Your task to perform on an android device: turn on priority inbox in the gmail app Image 0: 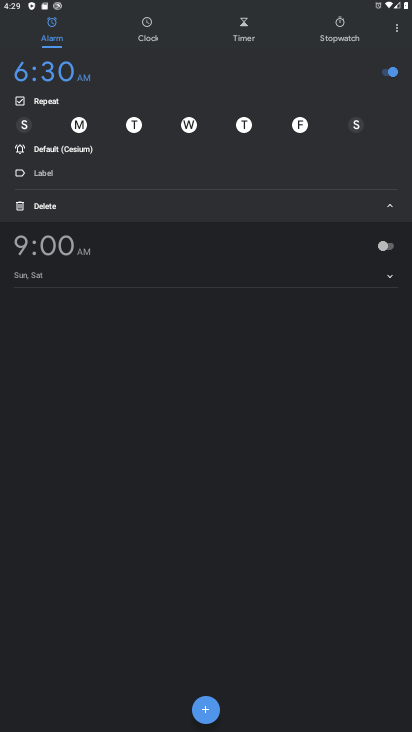
Step 0: press home button
Your task to perform on an android device: turn on priority inbox in the gmail app Image 1: 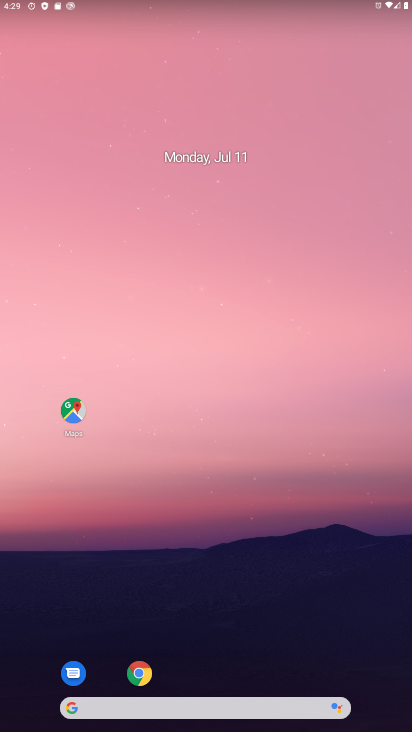
Step 1: drag from (199, 649) to (270, 107)
Your task to perform on an android device: turn on priority inbox in the gmail app Image 2: 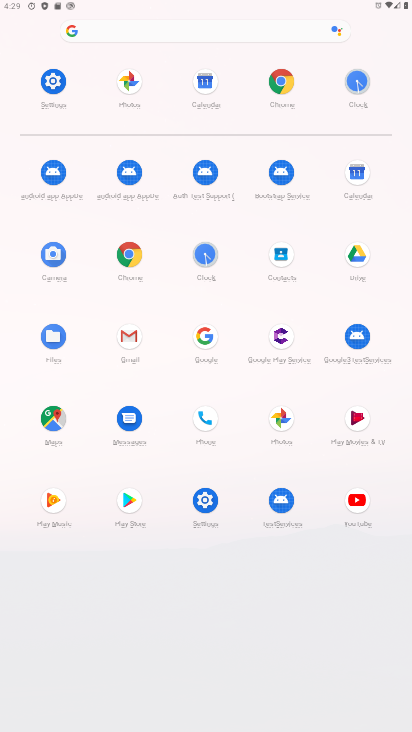
Step 2: click (136, 343)
Your task to perform on an android device: turn on priority inbox in the gmail app Image 3: 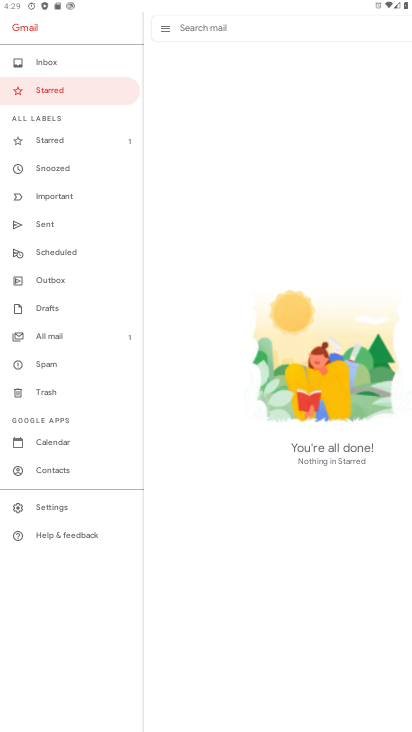
Step 3: click (50, 513)
Your task to perform on an android device: turn on priority inbox in the gmail app Image 4: 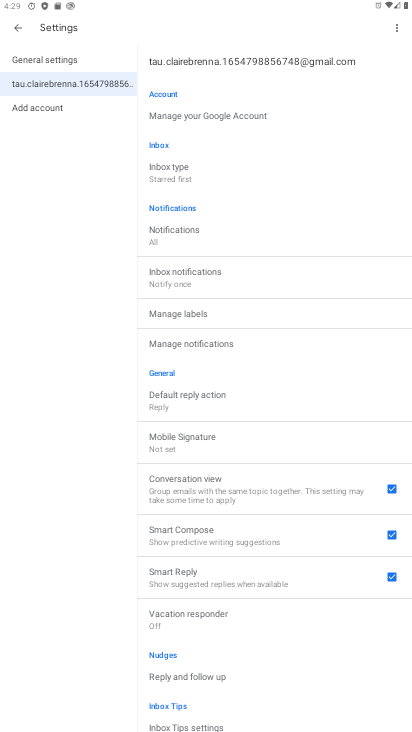
Step 4: click (76, 85)
Your task to perform on an android device: turn on priority inbox in the gmail app Image 5: 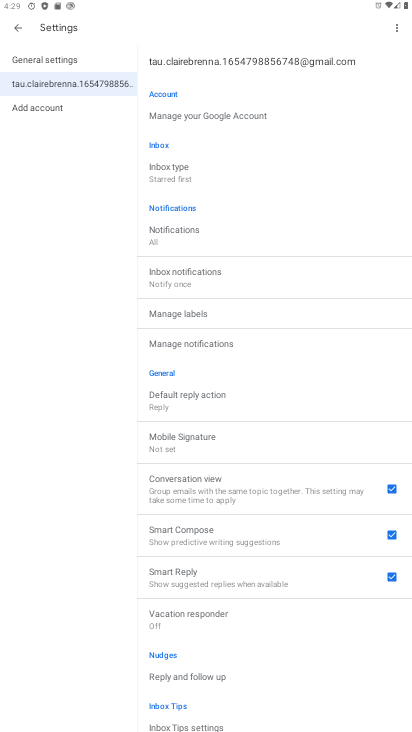
Step 5: drag from (270, 531) to (286, 308)
Your task to perform on an android device: turn on priority inbox in the gmail app Image 6: 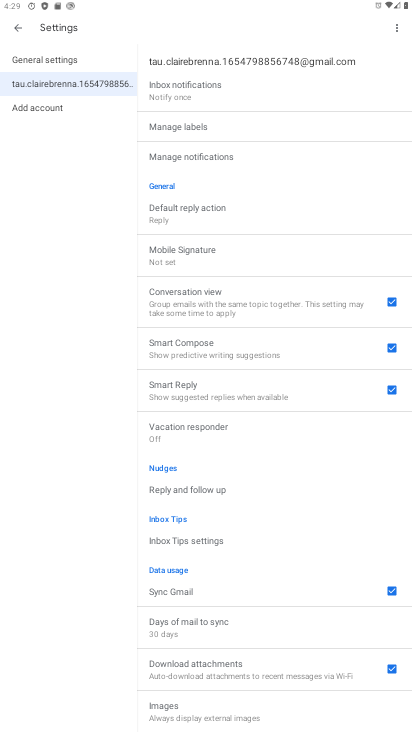
Step 6: drag from (243, 134) to (251, 435)
Your task to perform on an android device: turn on priority inbox in the gmail app Image 7: 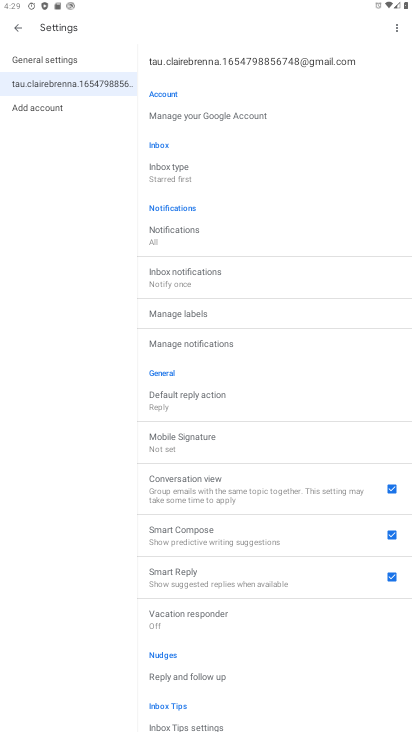
Step 7: click (172, 178)
Your task to perform on an android device: turn on priority inbox in the gmail app Image 8: 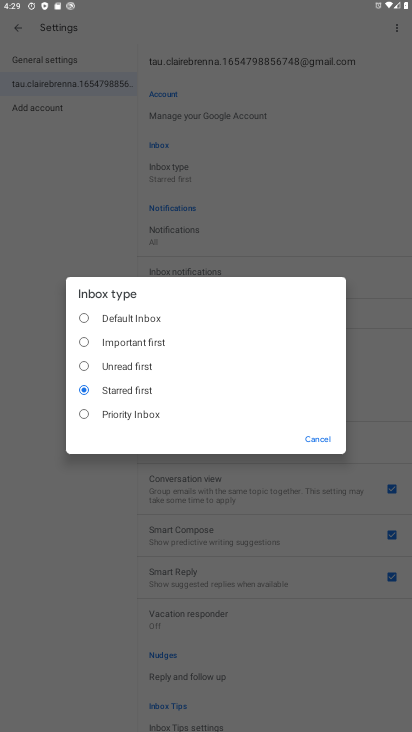
Step 8: click (140, 410)
Your task to perform on an android device: turn on priority inbox in the gmail app Image 9: 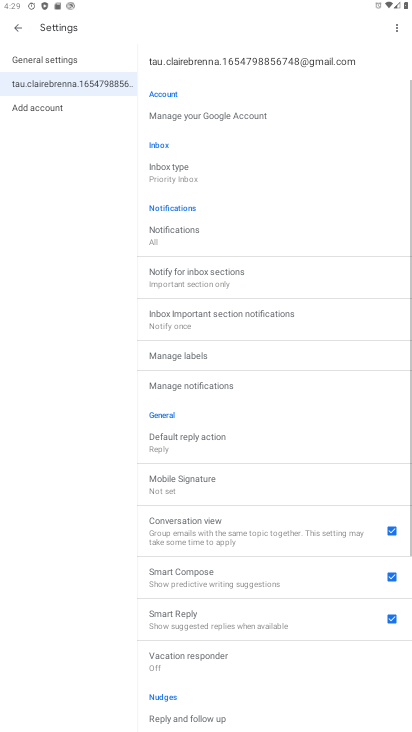
Step 9: task complete